Your task to perform on an android device: Open CNN.com Image 0: 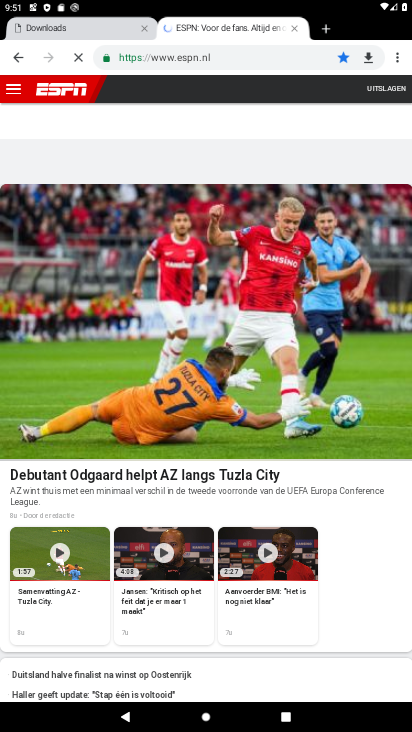
Step 0: click (328, 27)
Your task to perform on an android device: Open CNN.com Image 1: 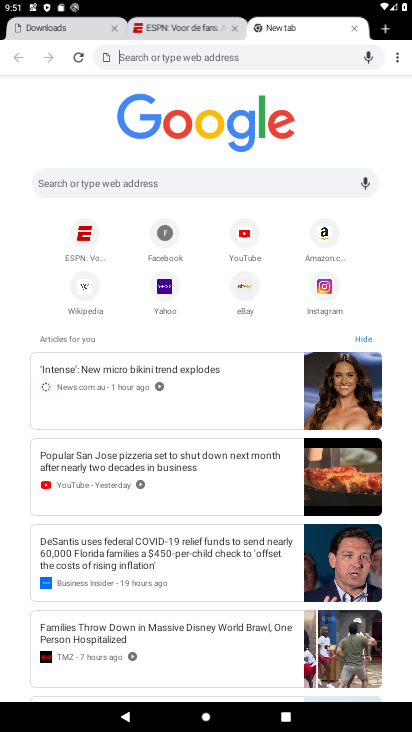
Step 1: click (138, 179)
Your task to perform on an android device: Open CNN.com Image 2: 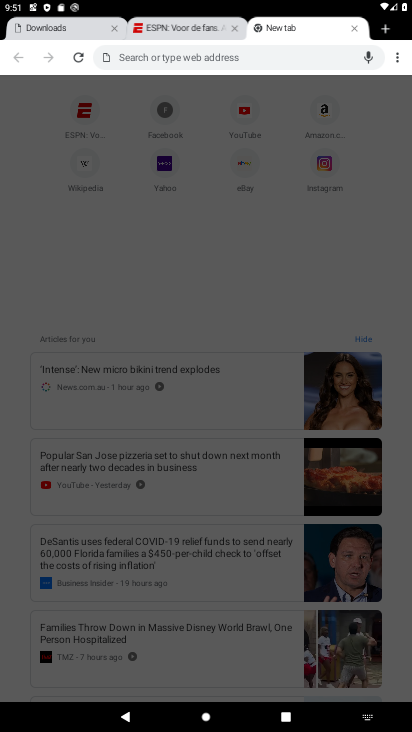
Step 2: type "cnnn"
Your task to perform on an android device: Open CNN.com Image 3: 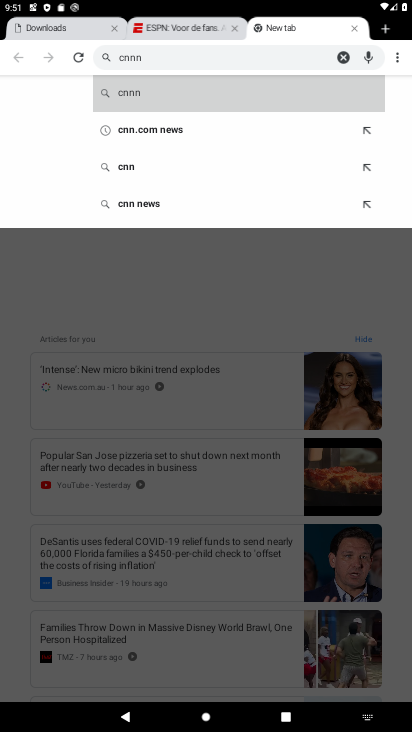
Step 3: click (211, 136)
Your task to perform on an android device: Open CNN.com Image 4: 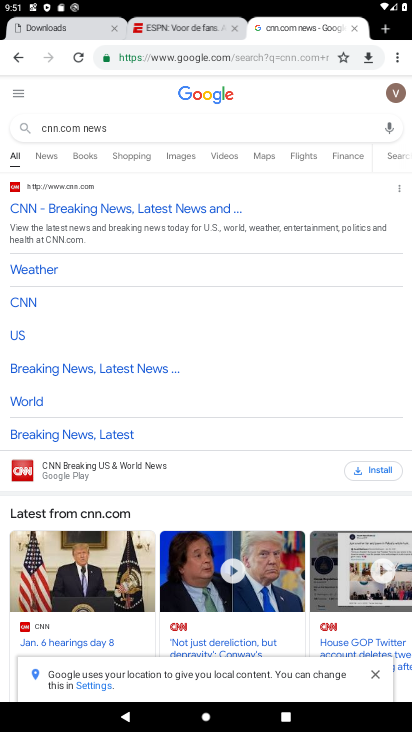
Step 4: click (92, 216)
Your task to perform on an android device: Open CNN.com Image 5: 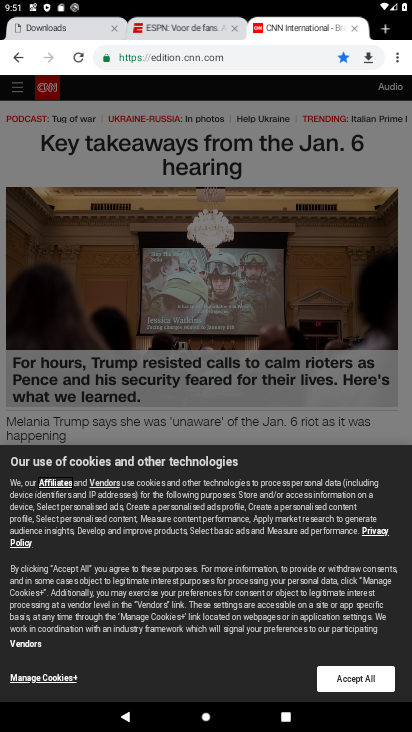
Step 5: task complete